Your task to perform on an android device: Is it going to rain today? Image 0: 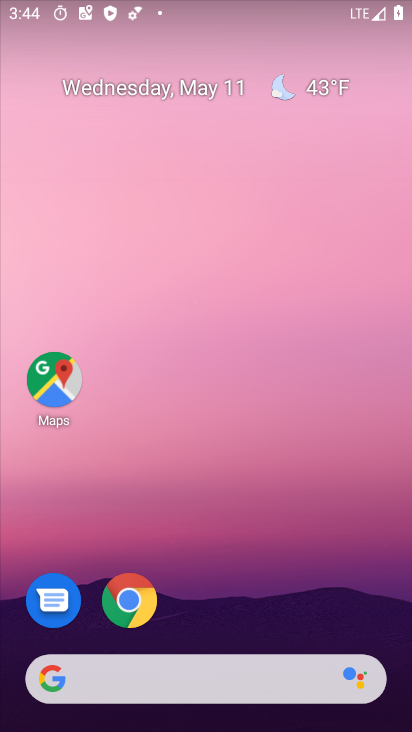
Step 0: click (314, 90)
Your task to perform on an android device: Is it going to rain today? Image 1: 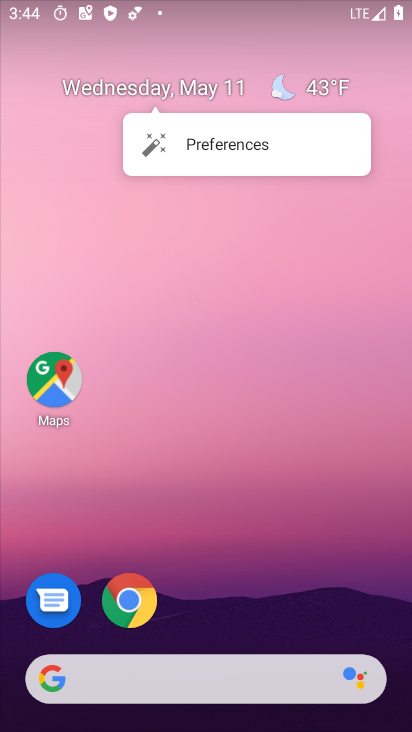
Step 1: click (315, 90)
Your task to perform on an android device: Is it going to rain today? Image 2: 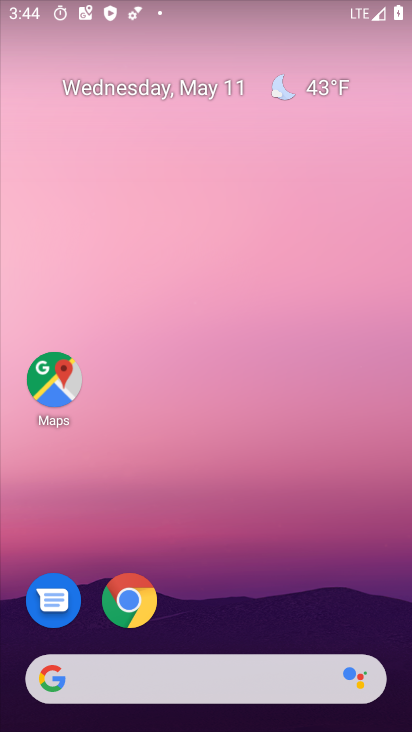
Step 2: click (328, 87)
Your task to perform on an android device: Is it going to rain today? Image 3: 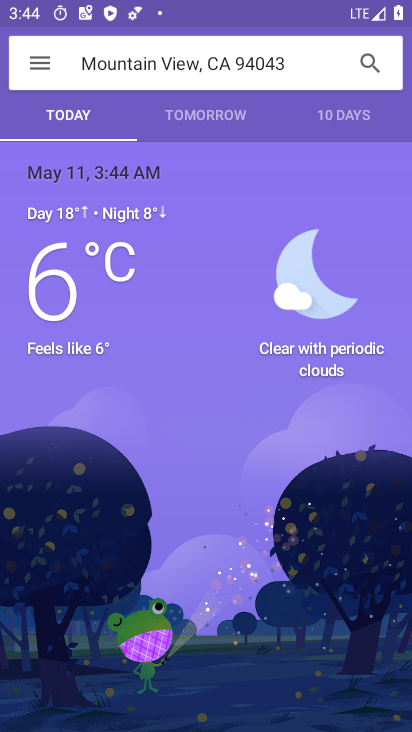
Step 3: task complete